Your task to perform on an android device: turn on the 12-hour format for clock Image 0: 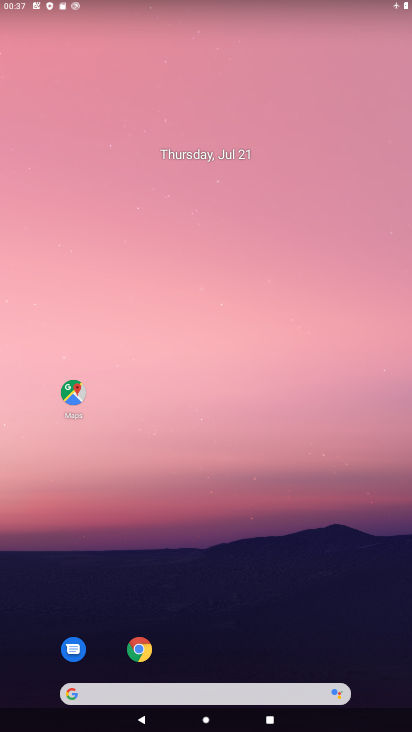
Step 0: drag from (227, 705) to (227, 237)
Your task to perform on an android device: turn on the 12-hour format for clock Image 1: 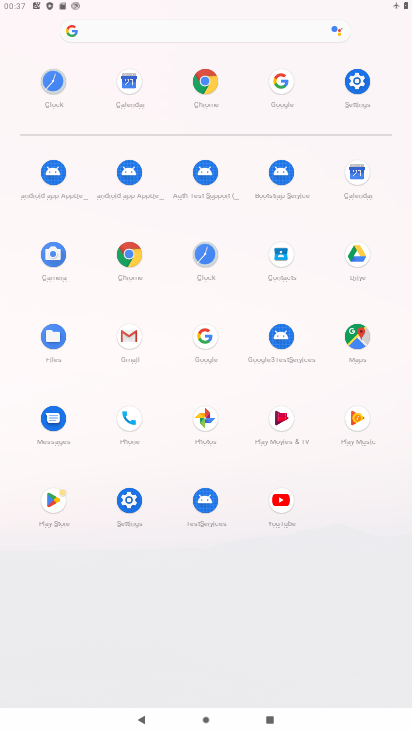
Step 1: click (208, 256)
Your task to perform on an android device: turn on the 12-hour format for clock Image 2: 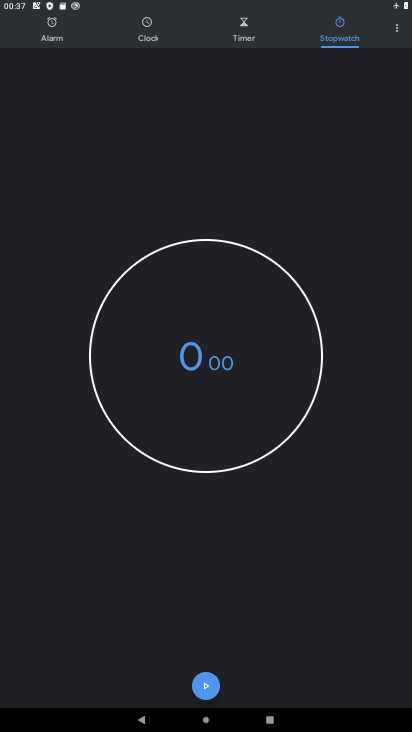
Step 2: click (398, 30)
Your task to perform on an android device: turn on the 12-hour format for clock Image 3: 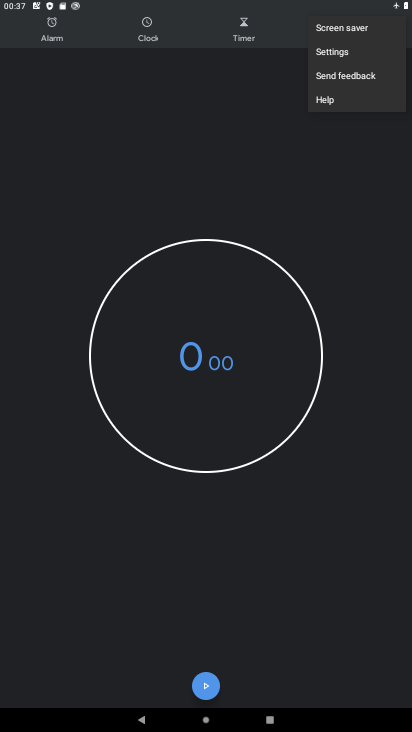
Step 3: click (340, 50)
Your task to perform on an android device: turn on the 12-hour format for clock Image 4: 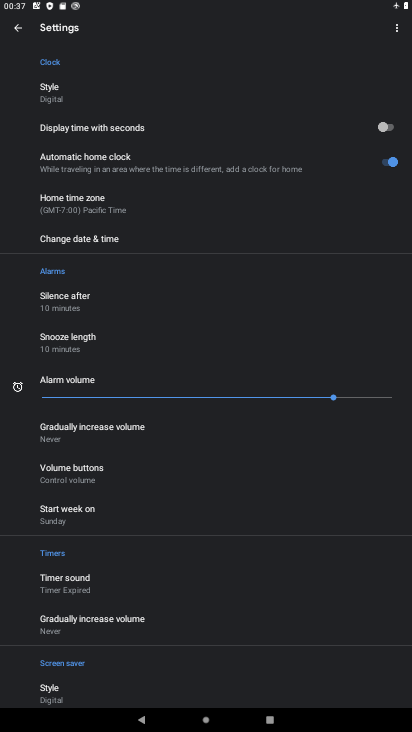
Step 4: click (93, 236)
Your task to perform on an android device: turn on the 12-hour format for clock Image 5: 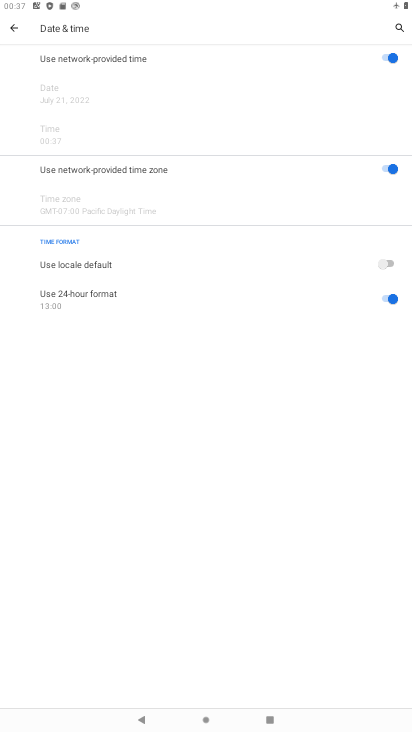
Step 5: click (386, 297)
Your task to perform on an android device: turn on the 12-hour format for clock Image 6: 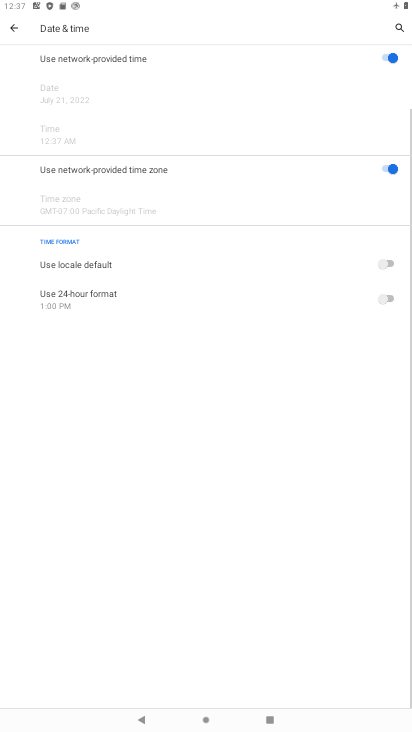
Step 6: click (391, 262)
Your task to perform on an android device: turn on the 12-hour format for clock Image 7: 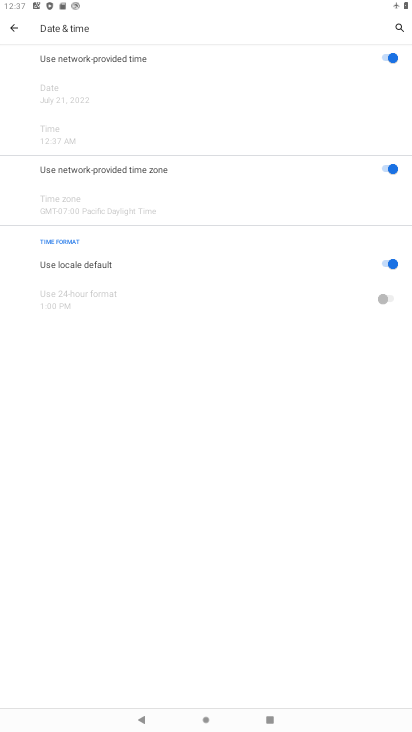
Step 7: task complete